Your task to perform on an android device: Open Google Maps and go to "Timeline" Image 0: 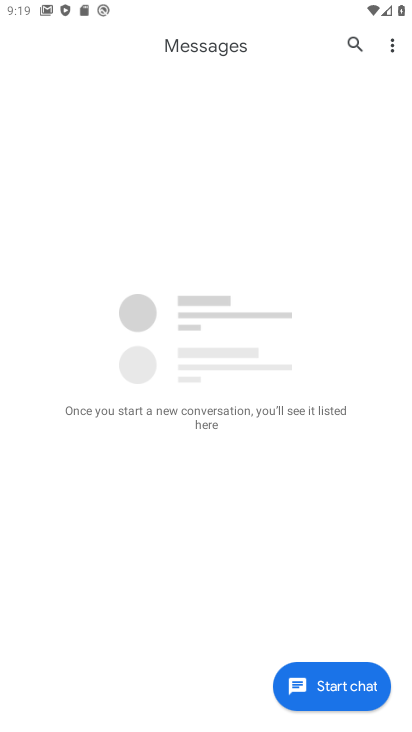
Step 0: press home button
Your task to perform on an android device: Open Google Maps and go to "Timeline" Image 1: 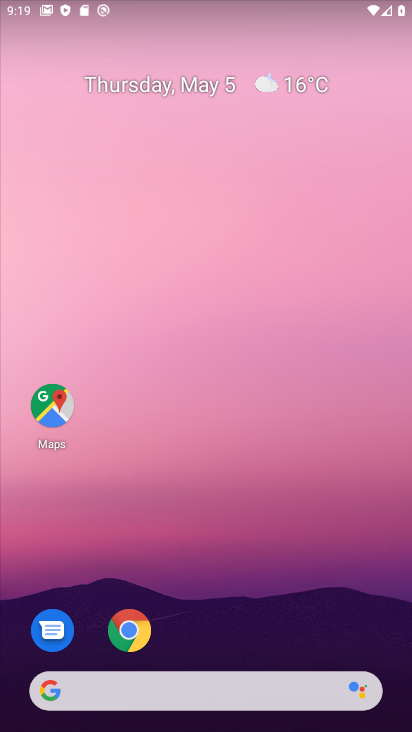
Step 1: click (45, 408)
Your task to perform on an android device: Open Google Maps and go to "Timeline" Image 2: 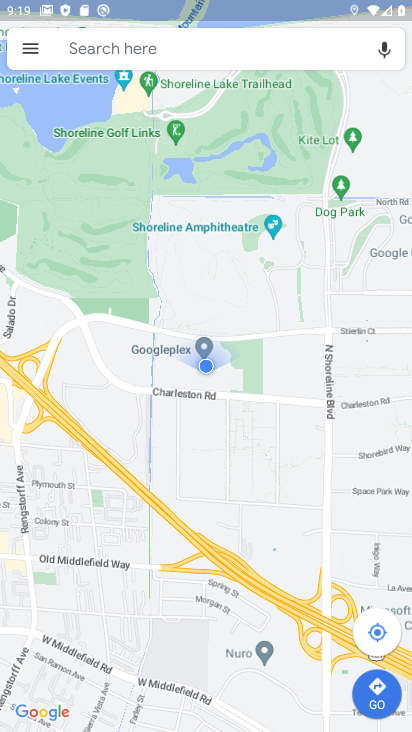
Step 2: click (8, 43)
Your task to perform on an android device: Open Google Maps and go to "Timeline" Image 3: 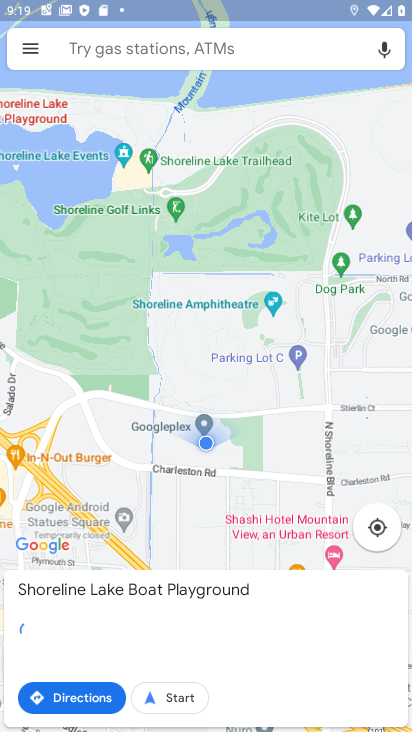
Step 3: click (38, 46)
Your task to perform on an android device: Open Google Maps and go to "Timeline" Image 4: 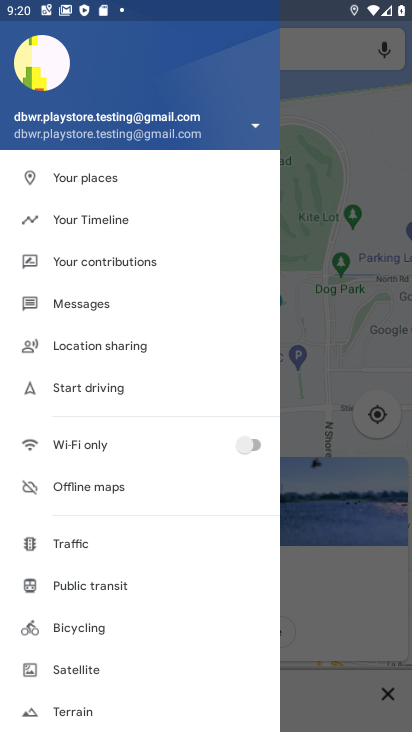
Step 4: click (106, 221)
Your task to perform on an android device: Open Google Maps and go to "Timeline" Image 5: 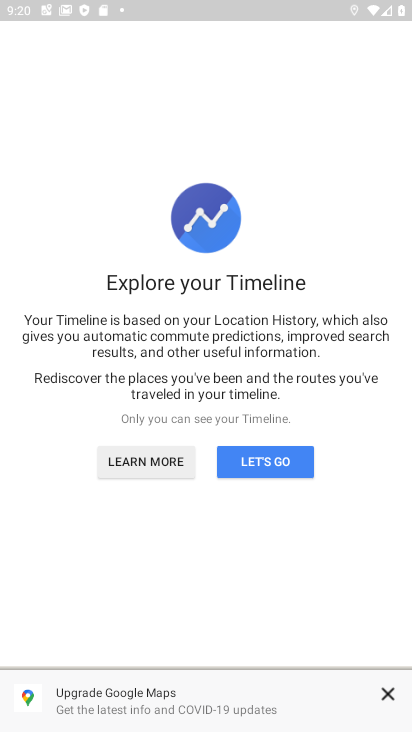
Step 5: click (268, 462)
Your task to perform on an android device: Open Google Maps and go to "Timeline" Image 6: 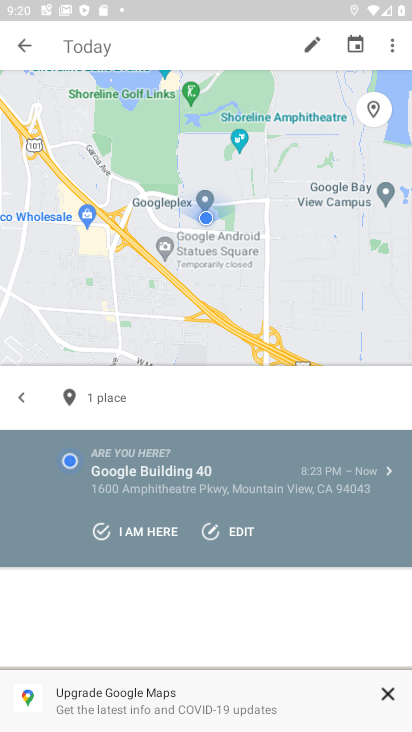
Step 6: task complete